Your task to perform on an android device: find which apps use the phone's location Image 0: 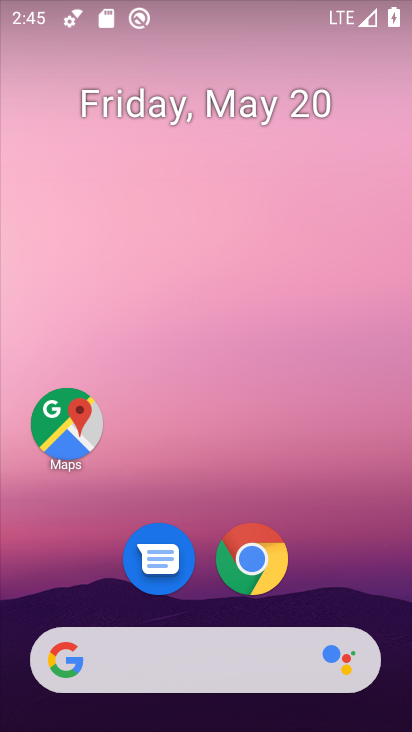
Step 0: drag from (272, 465) to (239, 0)
Your task to perform on an android device: find which apps use the phone's location Image 1: 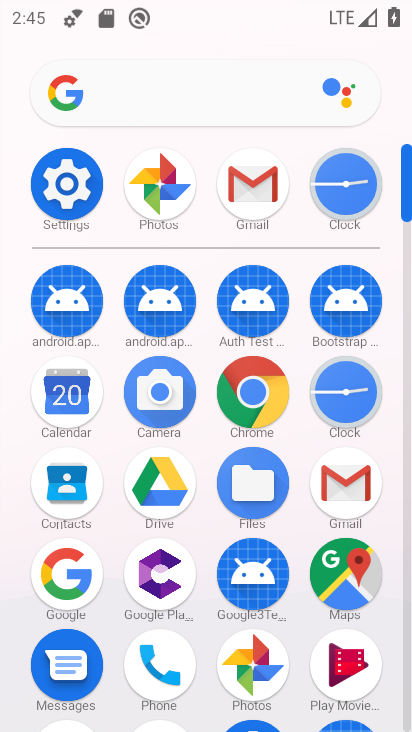
Step 1: click (74, 192)
Your task to perform on an android device: find which apps use the phone's location Image 2: 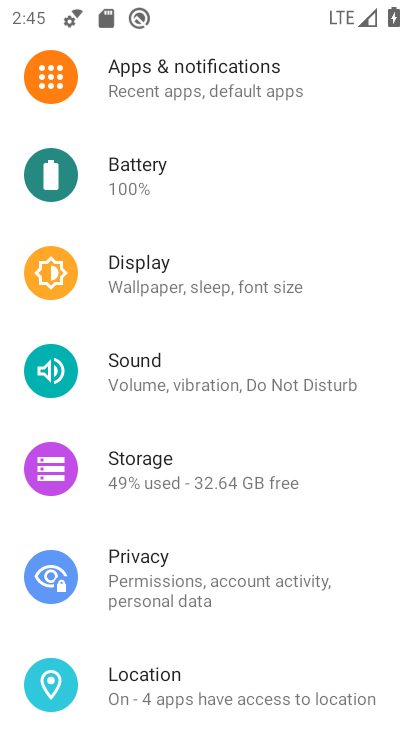
Step 2: click (252, 679)
Your task to perform on an android device: find which apps use the phone's location Image 3: 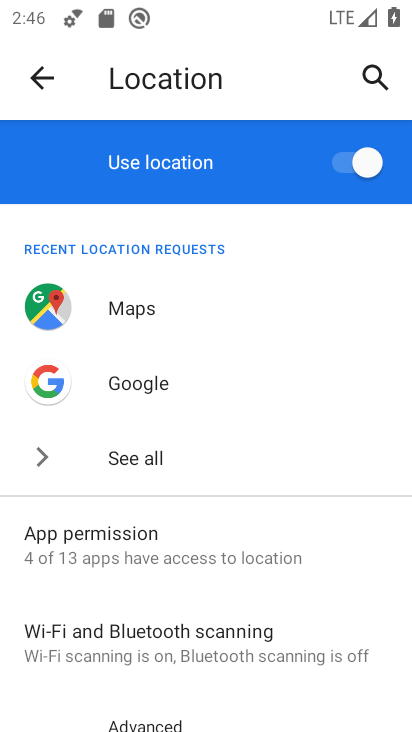
Step 3: click (129, 536)
Your task to perform on an android device: find which apps use the phone's location Image 4: 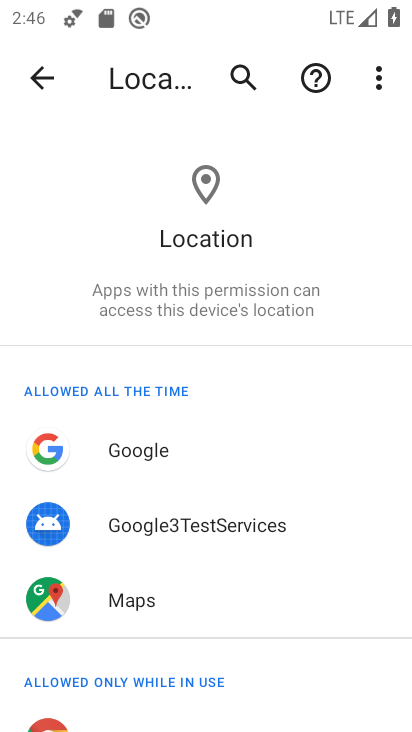
Step 4: task complete